Your task to perform on an android device: Search for usb-b on walmart, select the first entry, and add it to the cart. Image 0: 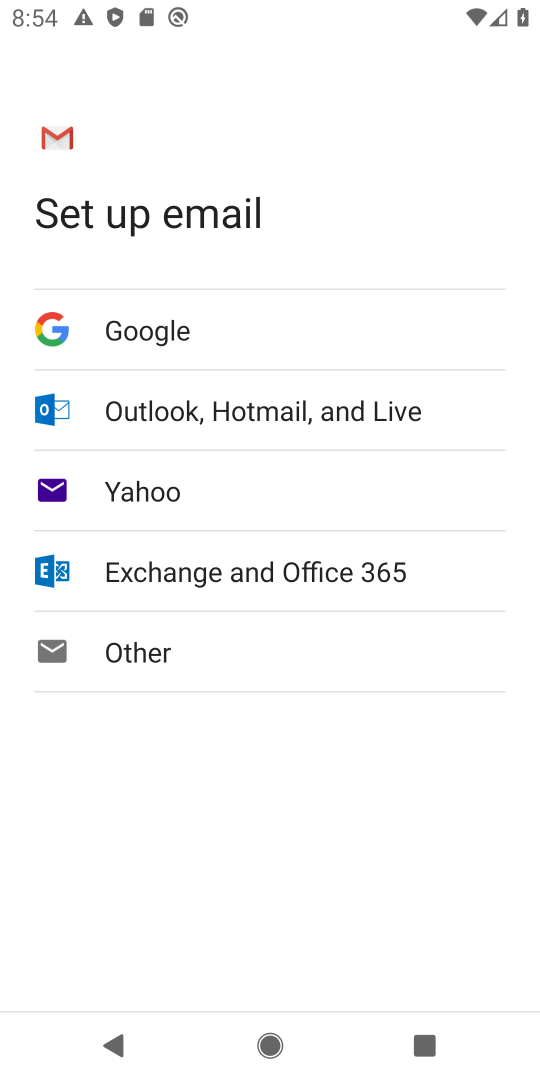
Step 0: press home button
Your task to perform on an android device: Search for usb-b on walmart, select the first entry, and add it to the cart. Image 1: 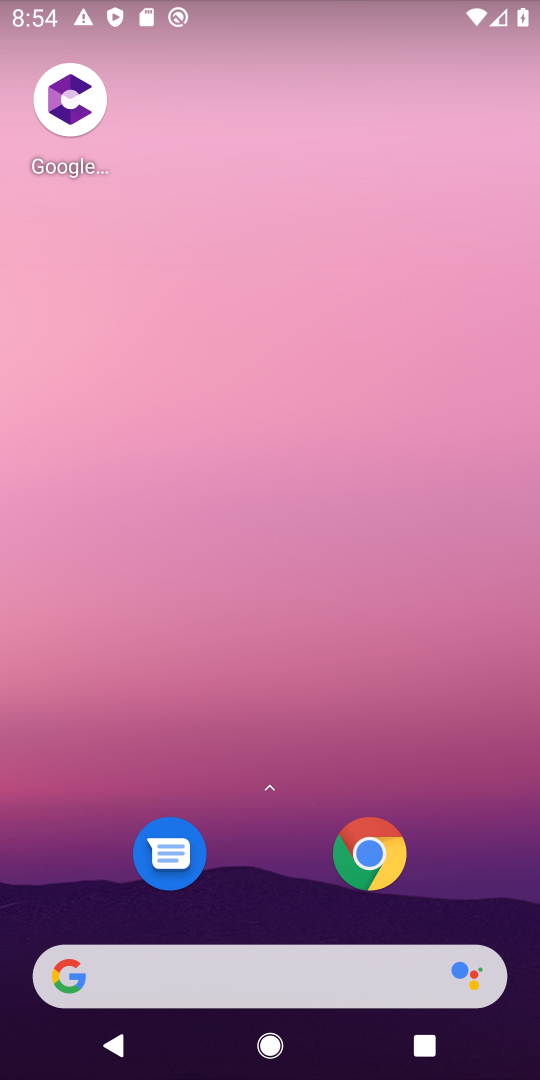
Step 1: click (207, 976)
Your task to perform on an android device: Search for usb-b on walmart, select the first entry, and add it to the cart. Image 2: 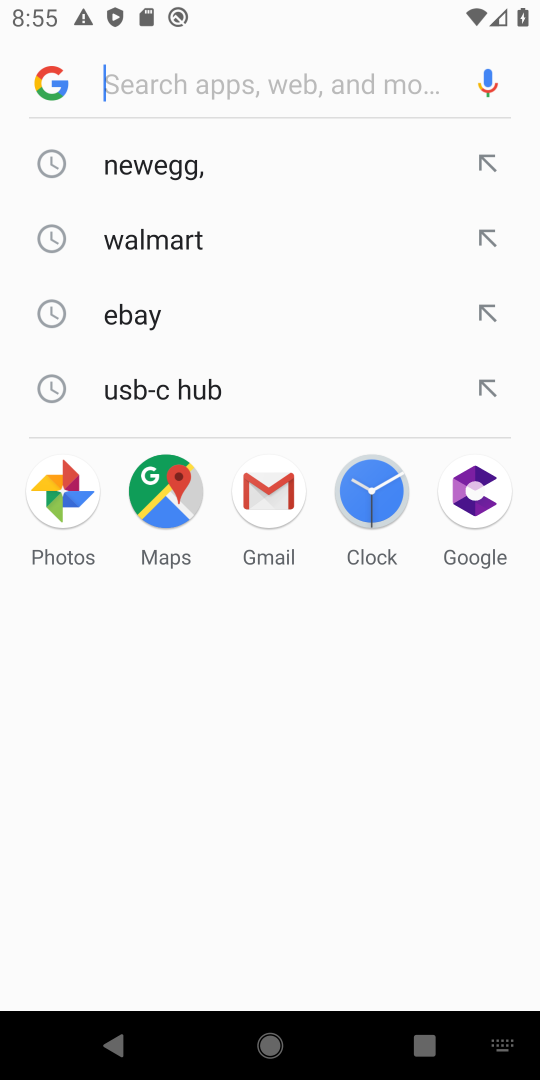
Step 2: click (265, 248)
Your task to perform on an android device: Search for usb-b on walmart, select the first entry, and add it to the cart. Image 3: 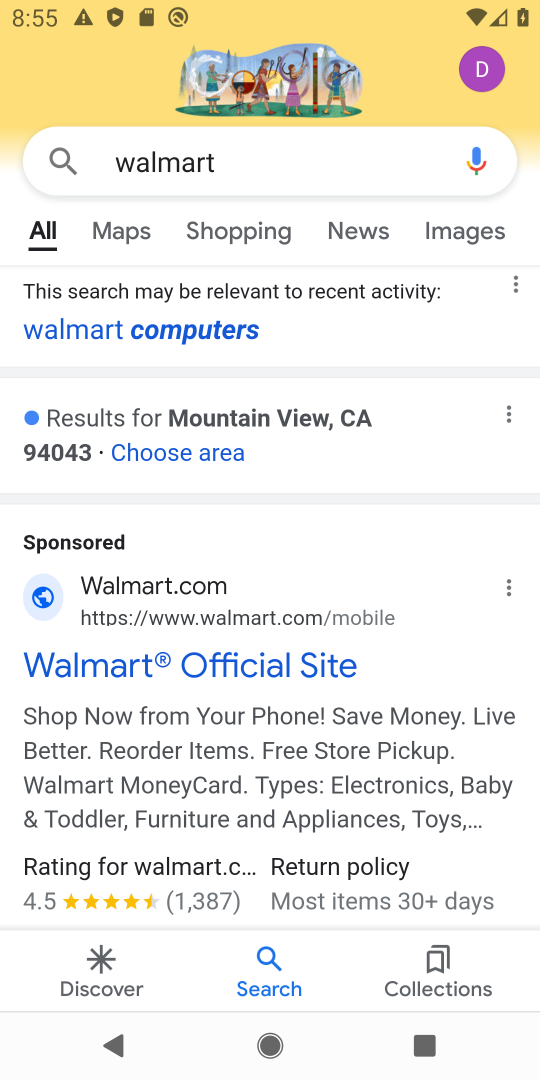
Step 3: click (140, 673)
Your task to perform on an android device: Search for usb-b on walmart, select the first entry, and add it to the cart. Image 4: 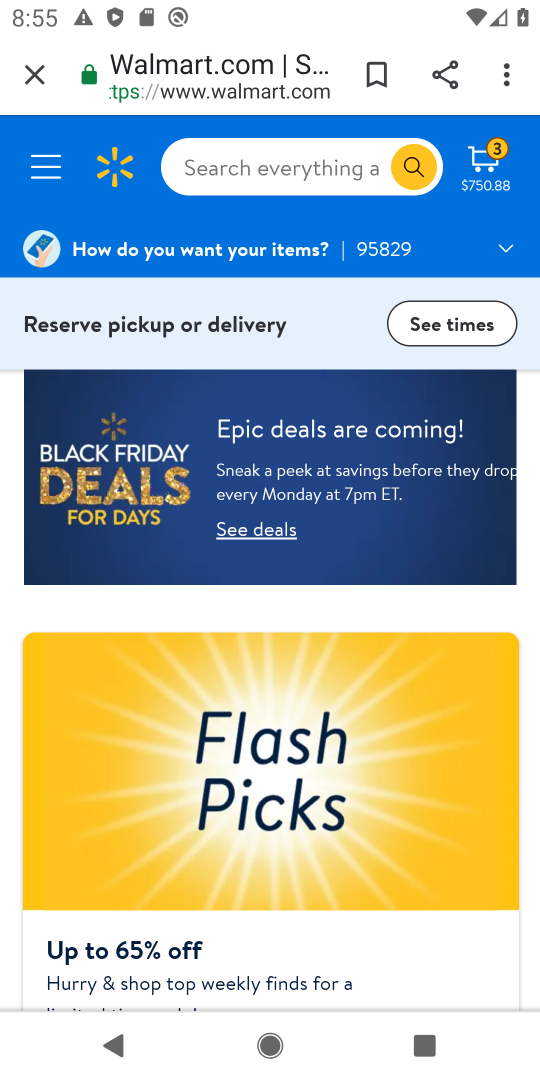
Step 4: click (230, 180)
Your task to perform on an android device: Search for usb-b on walmart, select the first entry, and add it to the cart. Image 5: 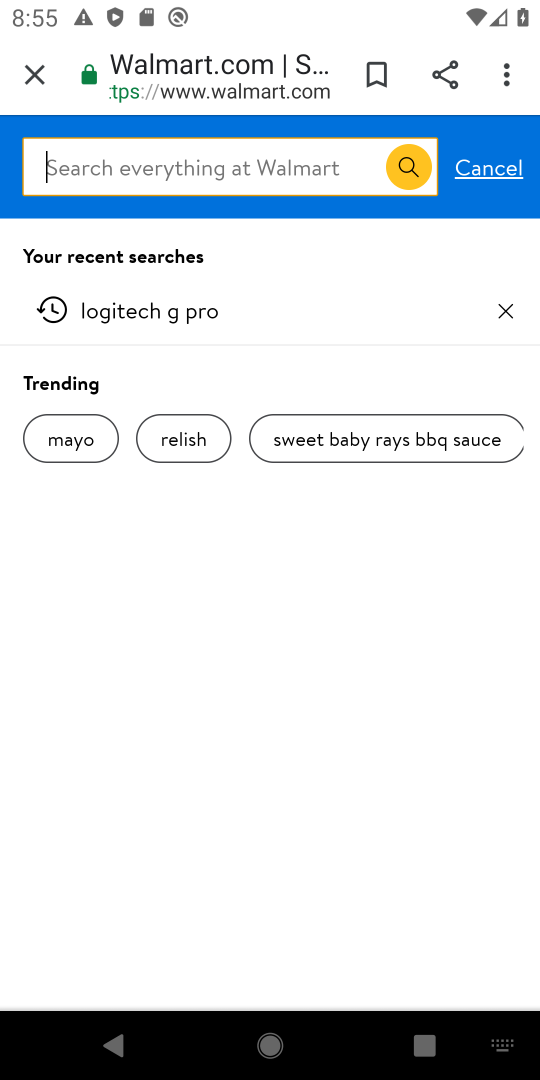
Step 5: type "usb-b"
Your task to perform on an android device: Search for usb-b on walmart, select the first entry, and add it to the cart. Image 6: 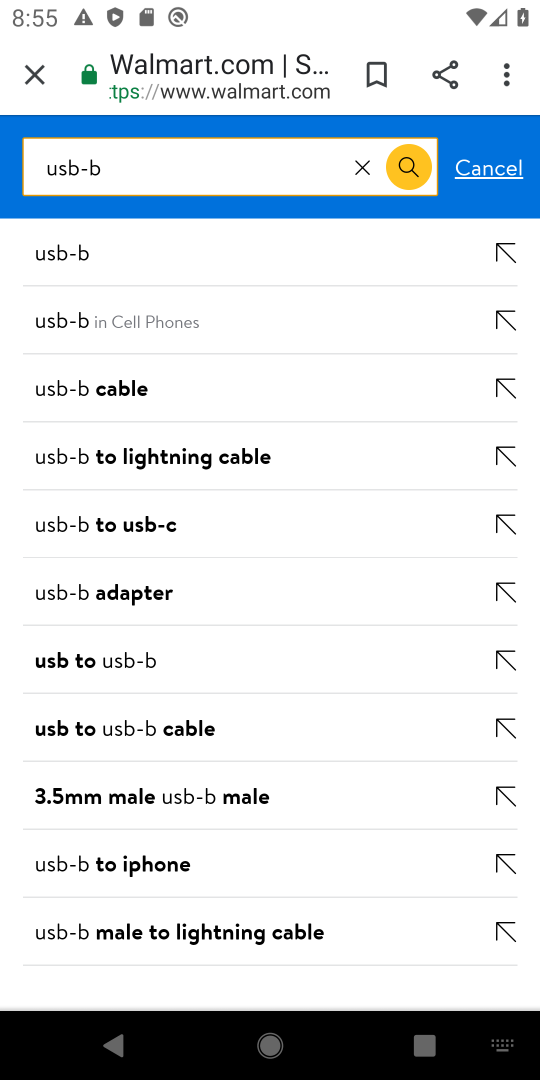
Step 6: click (186, 249)
Your task to perform on an android device: Search for usb-b on walmart, select the first entry, and add it to the cart. Image 7: 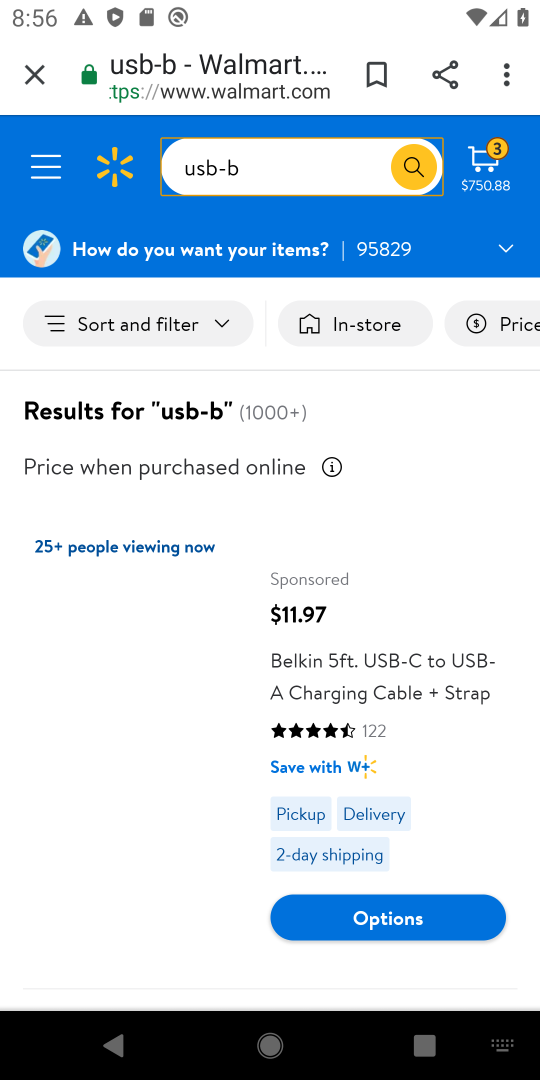
Step 7: click (369, 928)
Your task to perform on an android device: Search for usb-b on walmart, select the first entry, and add it to the cart. Image 8: 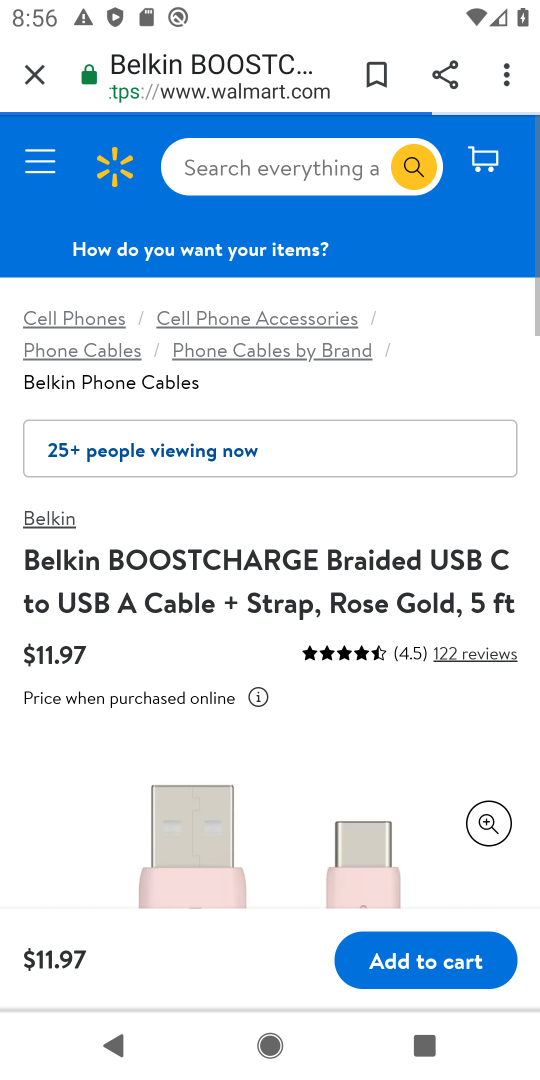
Step 8: task complete